Your task to perform on an android device: change the upload size in google photos Image 0: 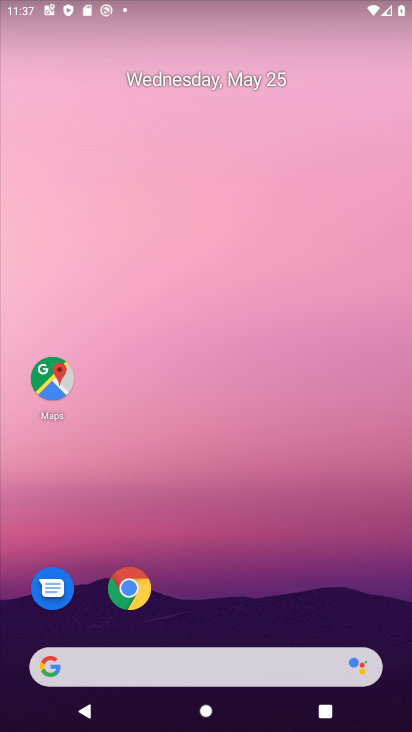
Step 0: drag from (215, 498) to (199, 60)
Your task to perform on an android device: change the upload size in google photos Image 1: 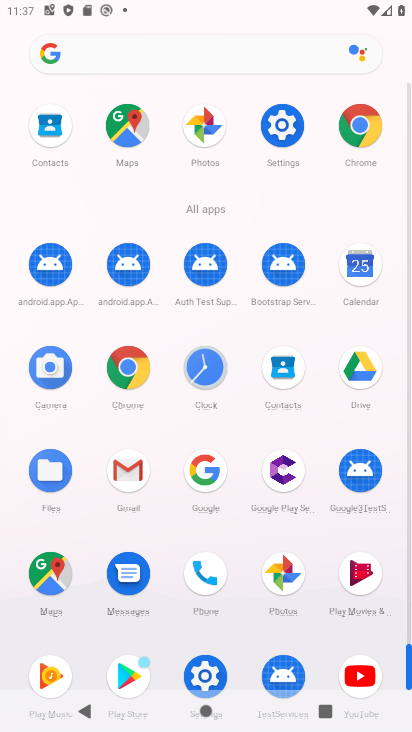
Step 1: drag from (15, 577) to (29, 218)
Your task to perform on an android device: change the upload size in google photos Image 2: 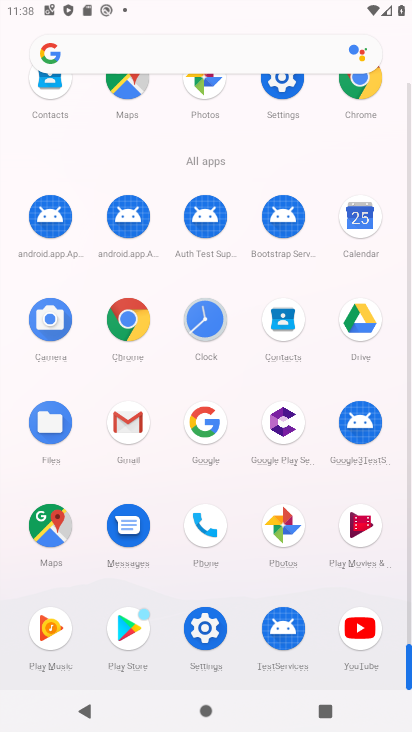
Step 2: click (285, 520)
Your task to perform on an android device: change the upload size in google photos Image 3: 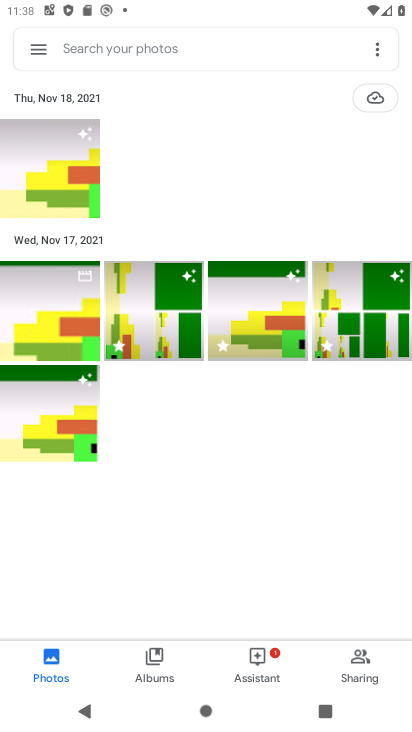
Step 3: click (40, 43)
Your task to perform on an android device: change the upload size in google photos Image 4: 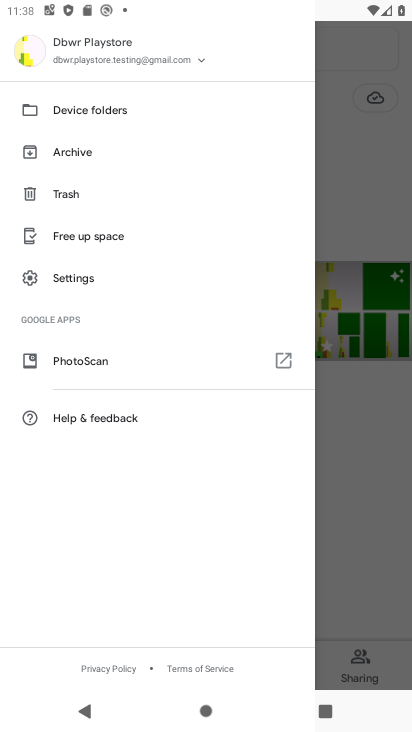
Step 4: click (96, 284)
Your task to perform on an android device: change the upload size in google photos Image 5: 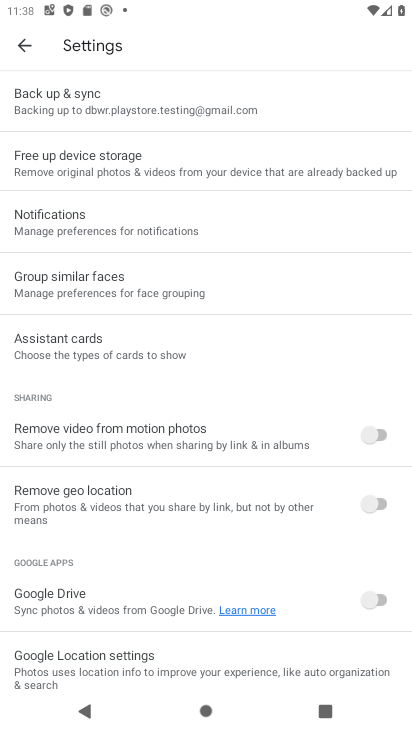
Step 5: click (130, 94)
Your task to perform on an android device: change the upload size in google photos Image 6: 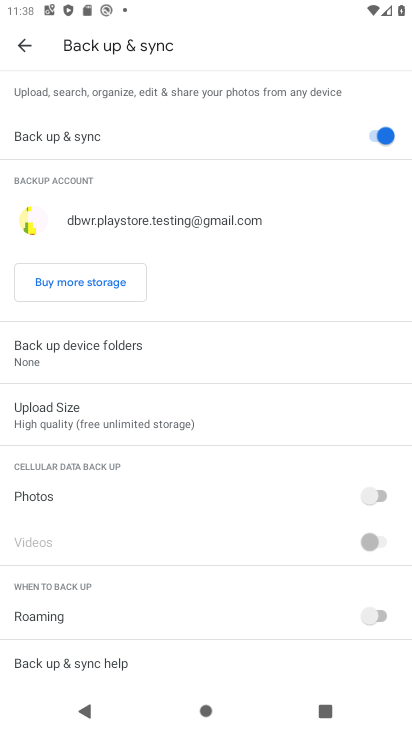
Step 6: click (113, 418)
Your task to perform on an android device: change the upload size in google photos Image 7: 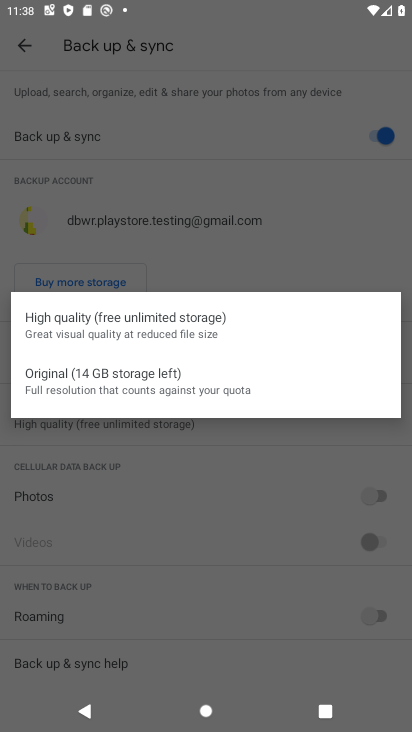
Step 7: click (121, 380)
Your task to perform on an android device: change the upload size in google photos Image 8: 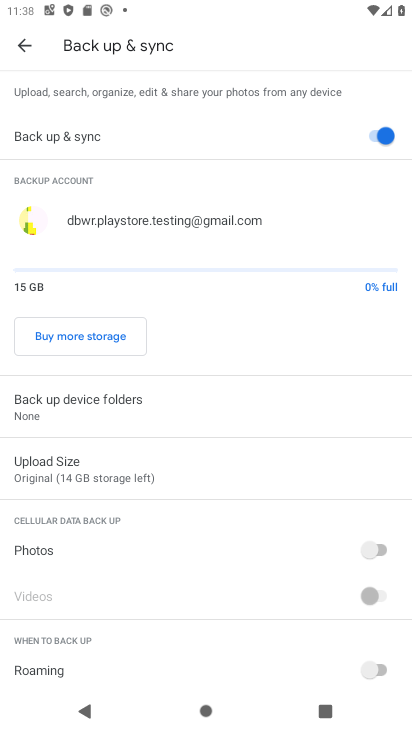
Step 8: task complete